Your task to perform on an android device: Clear all items from cart on walmart.com. Image 0: 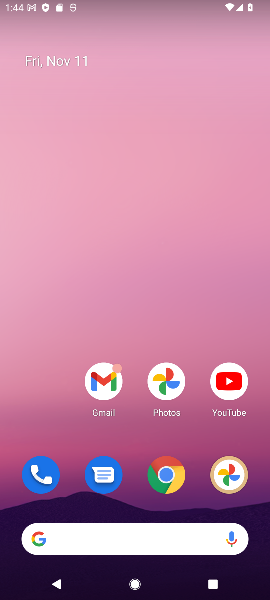
Step 0: drag from (78, 477) to (36, 84)
Your task to perform on an android device: Clear all items from cart on walmart.com. Image 1: 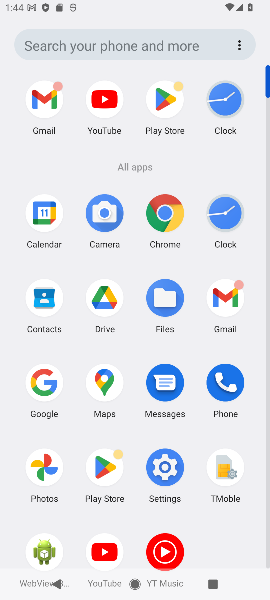
Step 1: click (168, 212)
Your task to perform on an android device: Clear all items from cart on walmart.com. Image 2: 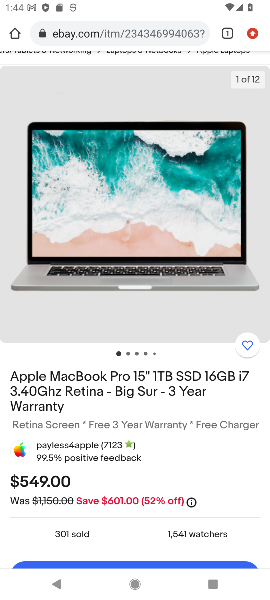
Step 2: click (132, 26)
Your task to perform on an android device: Clear all items from cart on walmart.com. Image 3: 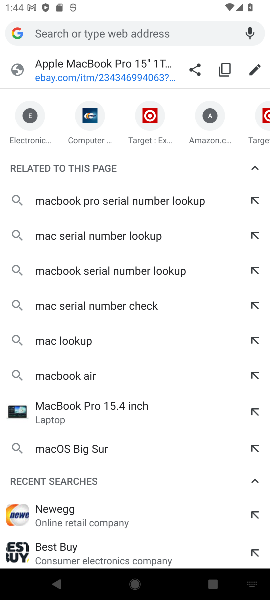
Step 3: type "walmart.com."
Your task to perform on an android device: Clear all items from cart on walmart.com. Image 4: 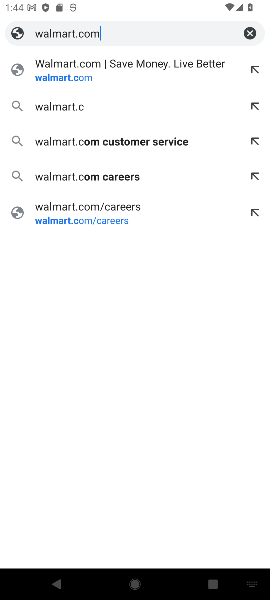
Step 4: press enter
Your task to perform on an android device: Clear all items from cart on walmart.com. Image 5: 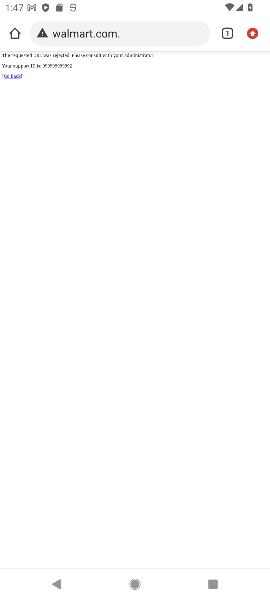
Step 5: task complete